Your task to perform on an android device: Open display settings Image 0: 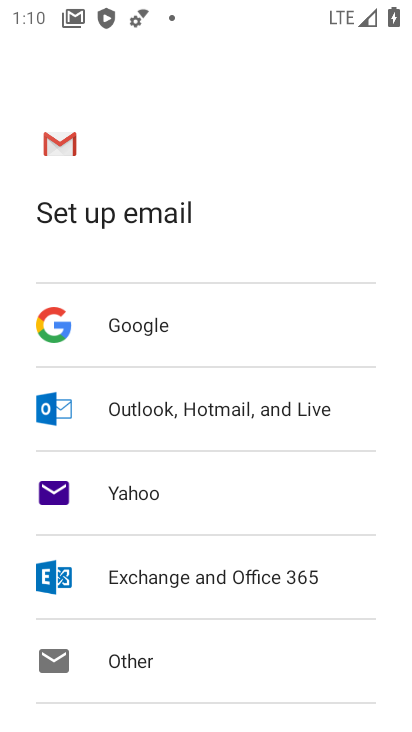
Step 0: press back button
Your task to perform on an android device: Open display settings Image 1: 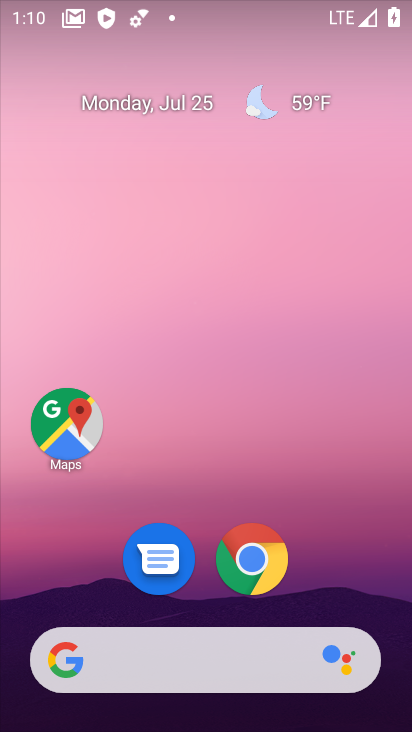
Step 1: drag from (78, 592) to (223, 17)
Your task to perform on an android device: Open display settings Image 2: 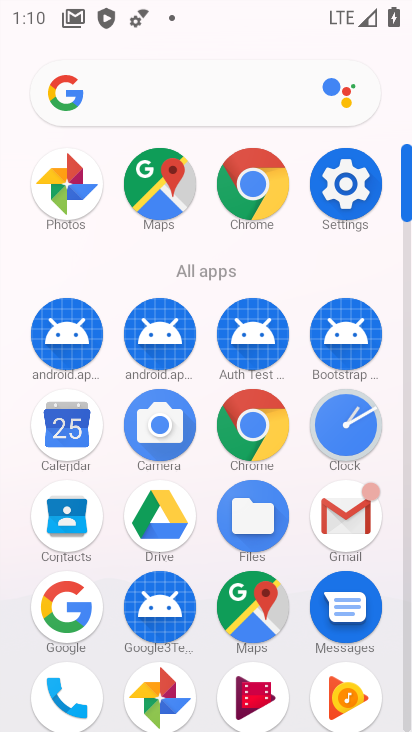
Step 2: click (351, 179)
Your task to perform on an android device: Open display settings Image 3: 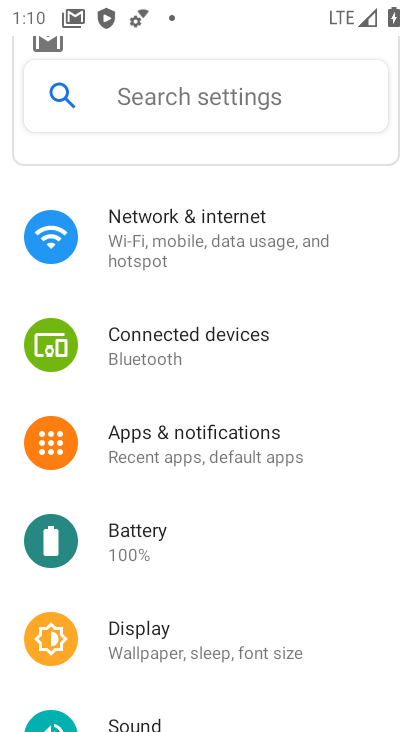
Step 3: click (168, 641)
Your task to perform on an android device: Open display settings Image 4: 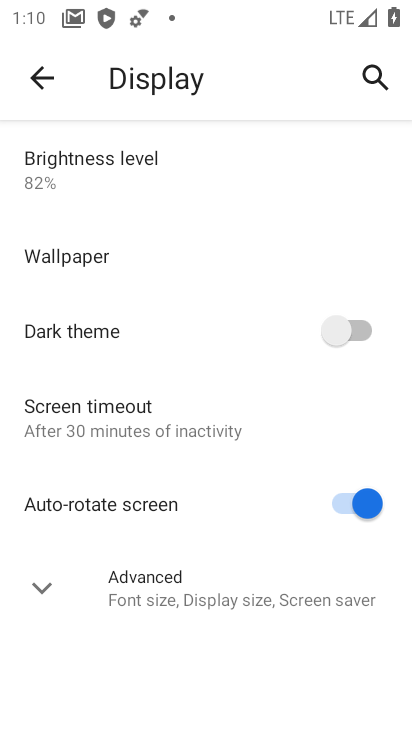
Step 4: task complete